Your task to perform on an android device: turn off priority inbox in the gmail app Image 0: 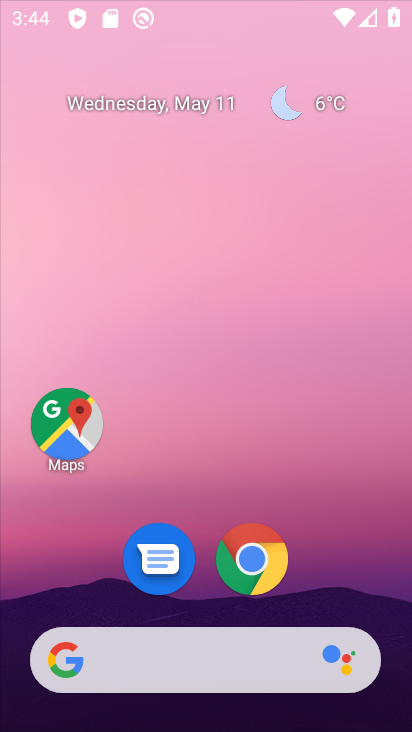
Step 0: drag from (318, 476) to (258, 103)
Your task to perform on an android device: turn off priority inbox in the gmail app Image 1: 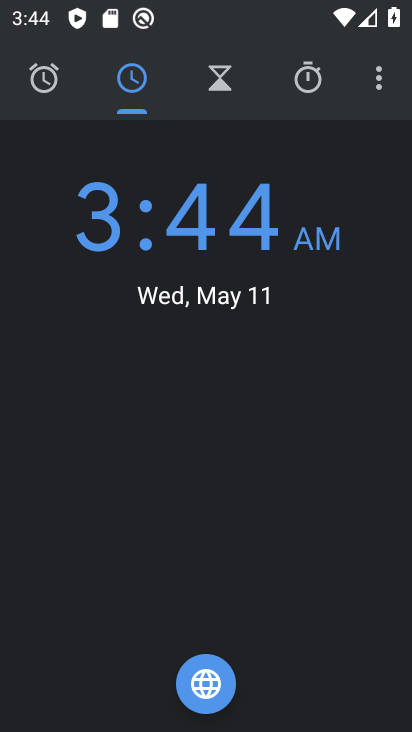
Step 1: press home button
Your task to perform on an android device: turn off priority inbox in the gmail app Image 2: 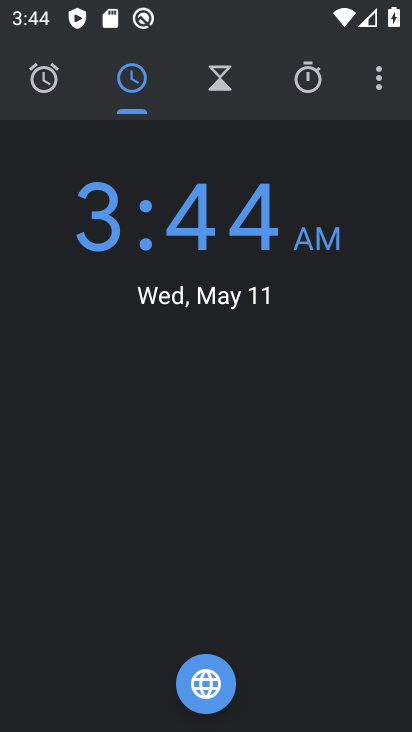
Step 2: press home button
Your task to perform on an android device: turn off priority inbox in the gmail app Image 3: 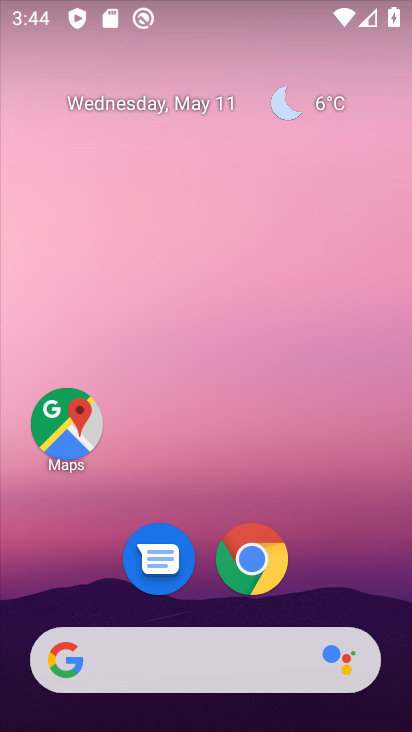
Step 3: drag from (321, 581) to (305, 167)
Your task to perform on an android device: turn off priority inbox in the gmail app Image 4: 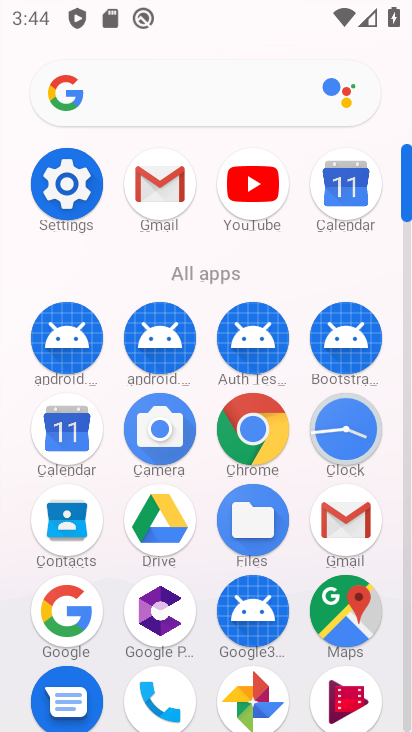
Step 4: click (350, 528)
Your task to perform on an android device: turn off priority inbox in the gmail app Image 5: 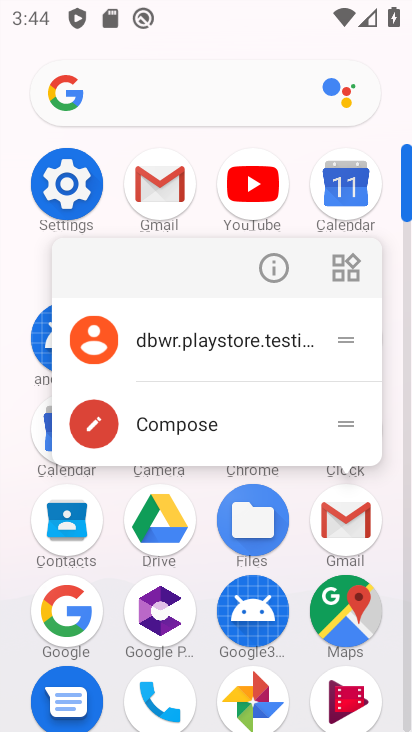
Step 5: click (350, 528)
Your task to perform on an android device: turn off priority inbox in the gmail app Image 6: 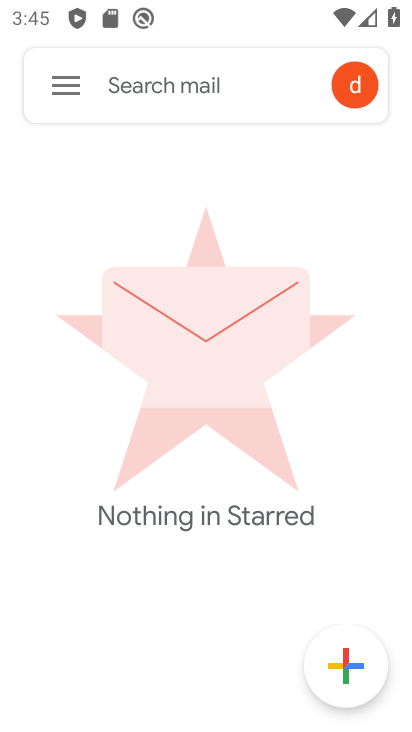
Step 6: click (92, 88)
Your task to perform on an android device: turn off priority inbox in the gmail app Image 7: 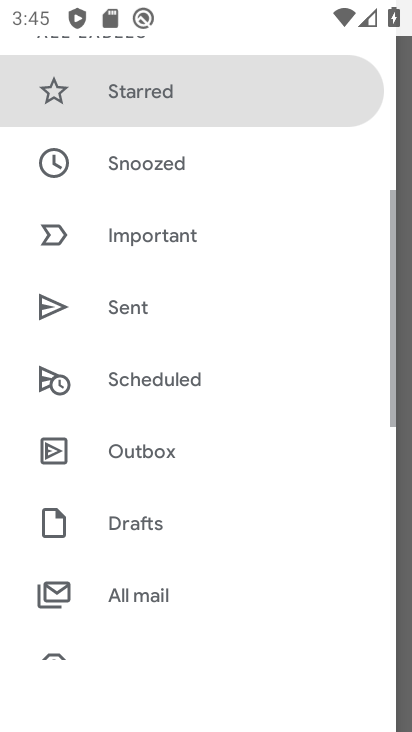
Step 7: drag from (154, 576) to (225, 103)
Your task to perform on an android device: turn off priority inbox in the gmail app Image 8: 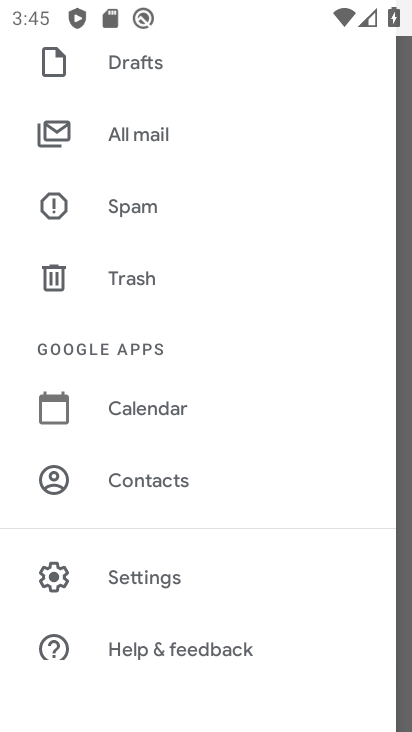
Step 8: click (169, 582)
Your task to perform on an android device: turn off priority inbox in the gmail app Image 9: 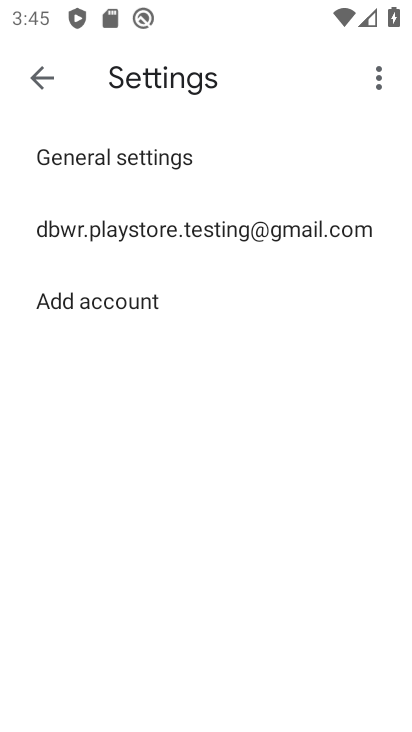
Step 9: click (115, 229)
Your task to perform on an android device: turn off priority inbox in the gmail app Image 10: 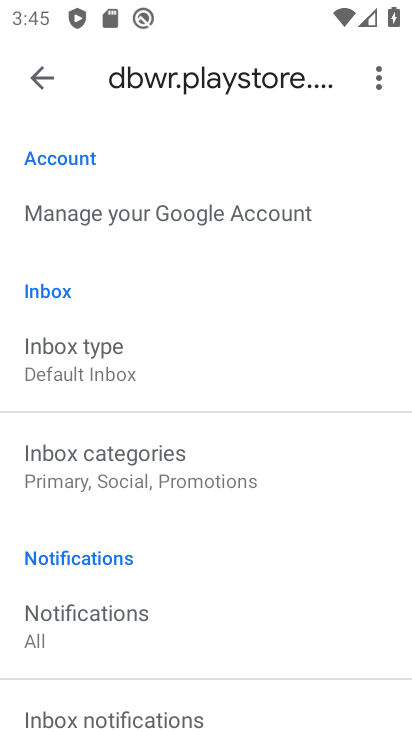
Step 10: drag from (143, 575) to (163, 224)
Your task to perform on an android device: turn off priority inbox in the gmail app Image 11: 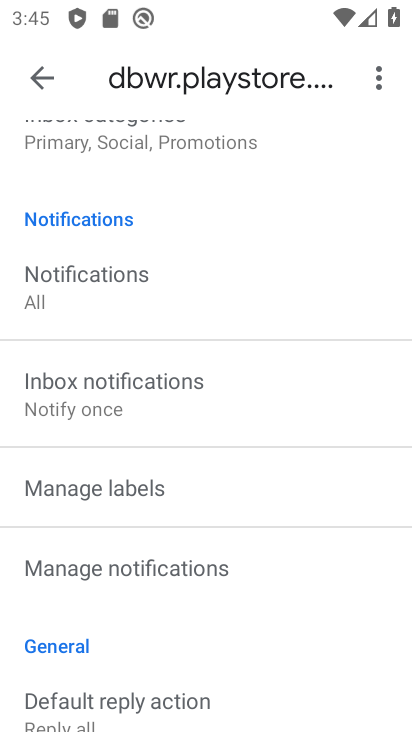
Step 11: drag from (88, 188) to (138, 578)
Your task to perform on an android device: turn off priority inbox in the gmail app Image 12: 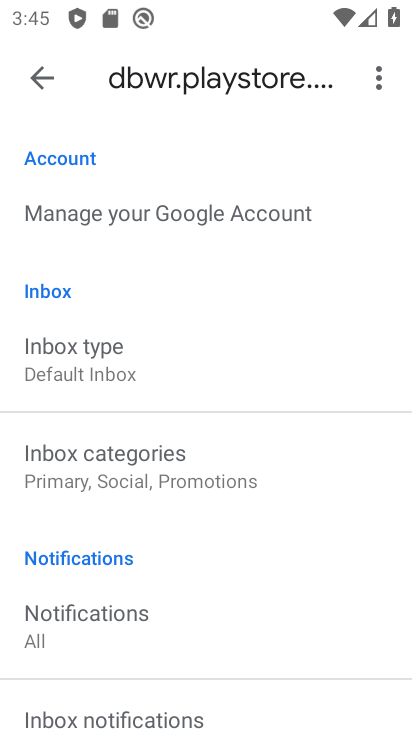
Step 12: drag from (50, 236) to (111, 586)
Your task to perform on an android device: turn off priority inbox in the gmail app Image 13: 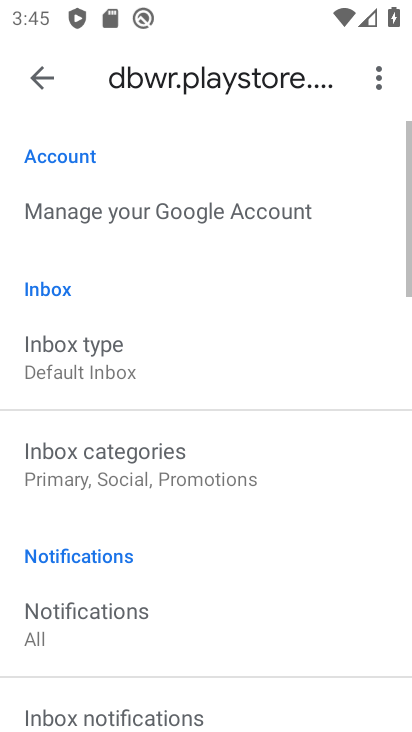
Step 13: click (53, 354)
Your task to perform on an android device: turn off priority inbox in the gmail app Image 14: 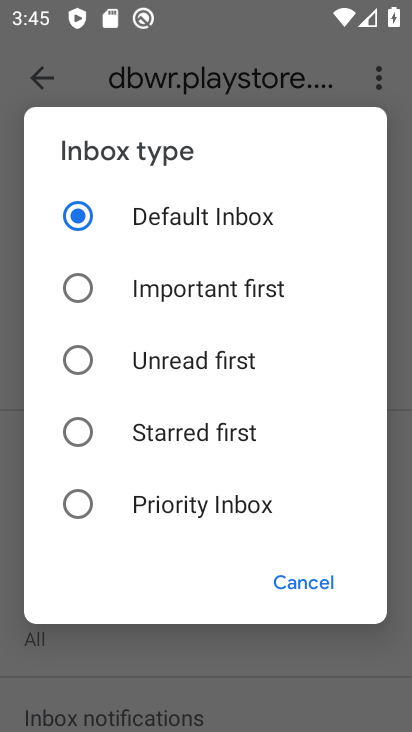
Step 14: task complete